Your task to perform on an android device: Open privacy settings Image 0: 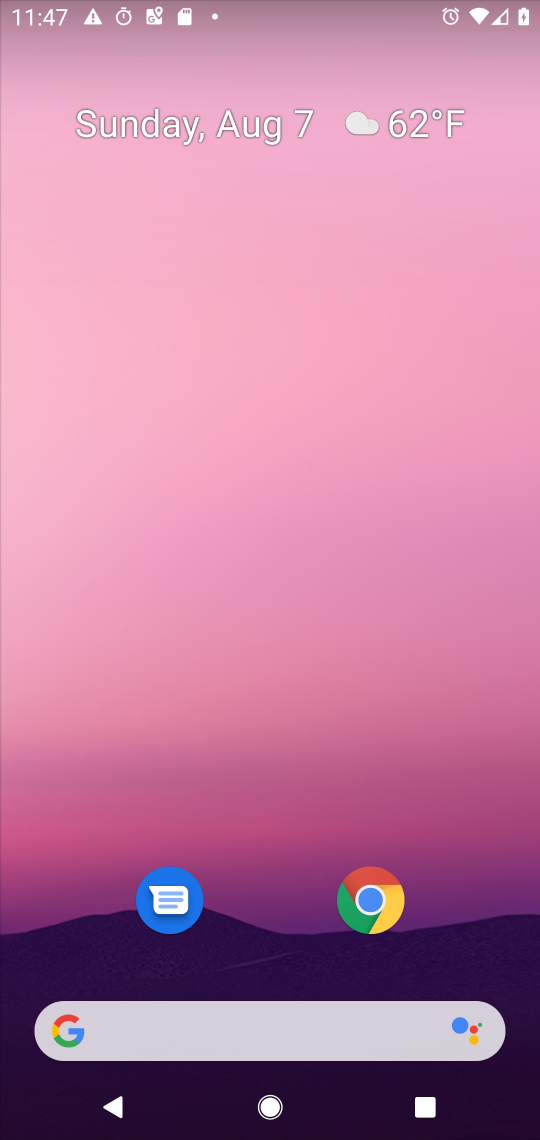
Step 0: drag from (281, 960) to (272, 138)
Your task to perform on an android device: Open privacy settings Image 1: 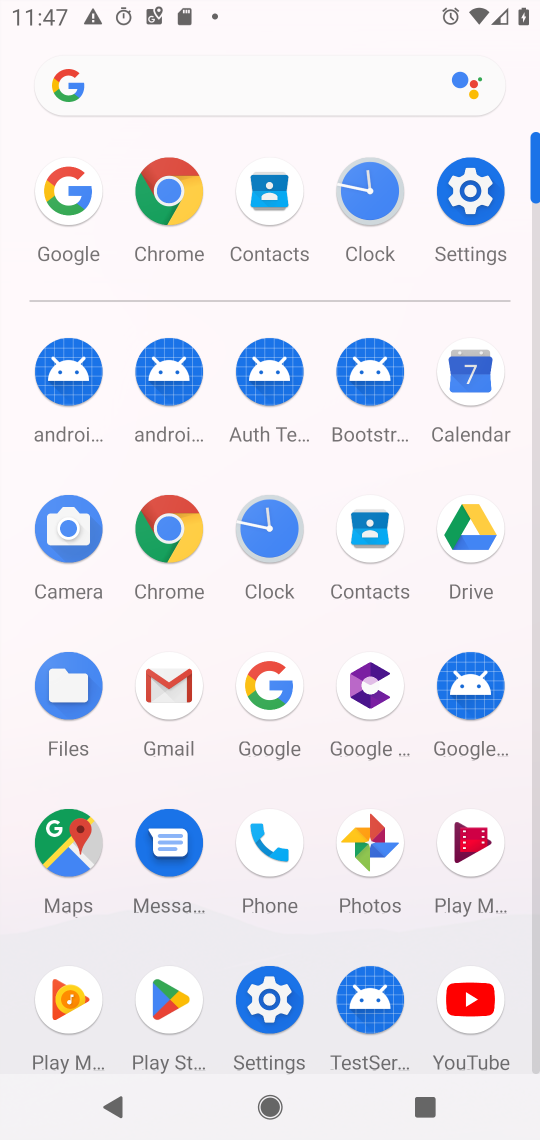
Step 1: click (465, 227)
Your task to perform on an android device: Open privacy settings Image 2: 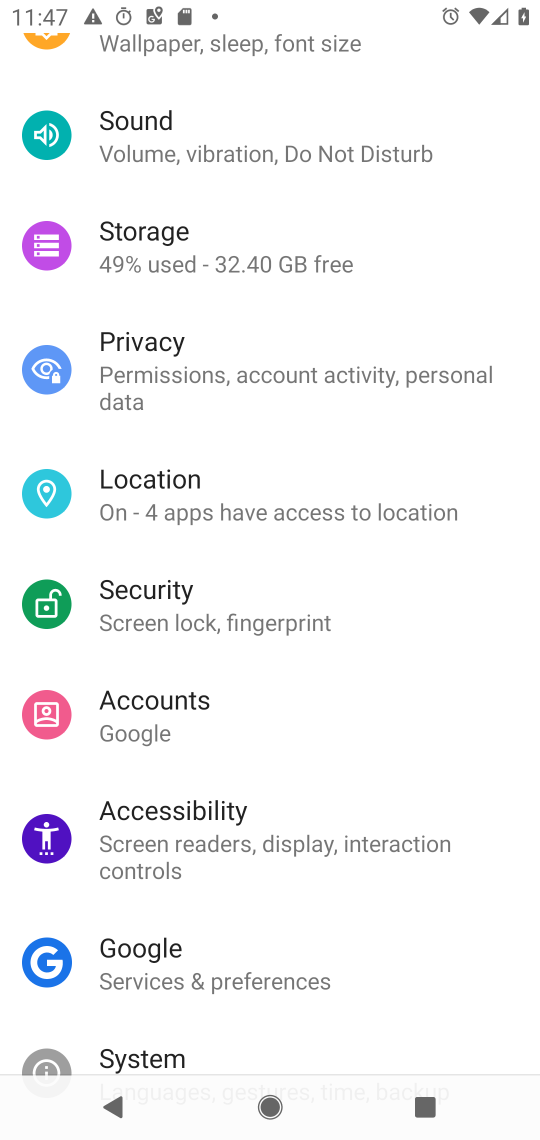
Step 2: click (203, 345)
Your task to perform on an android device: Open privacy settings Image 3: 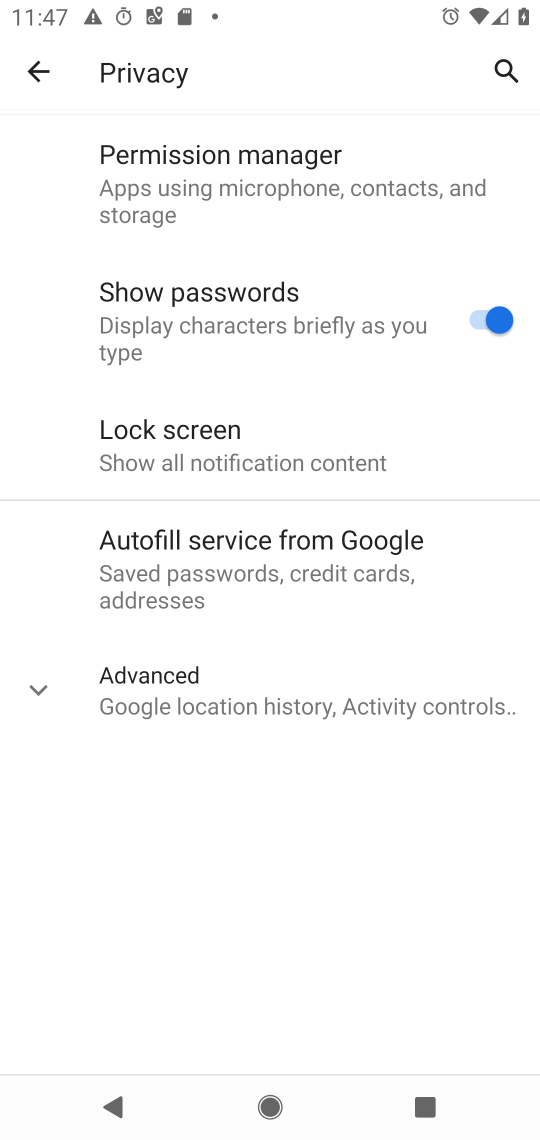
Step 3: click (41, 687)
Your task to perform on an android device: Open privacy settings Image 4: 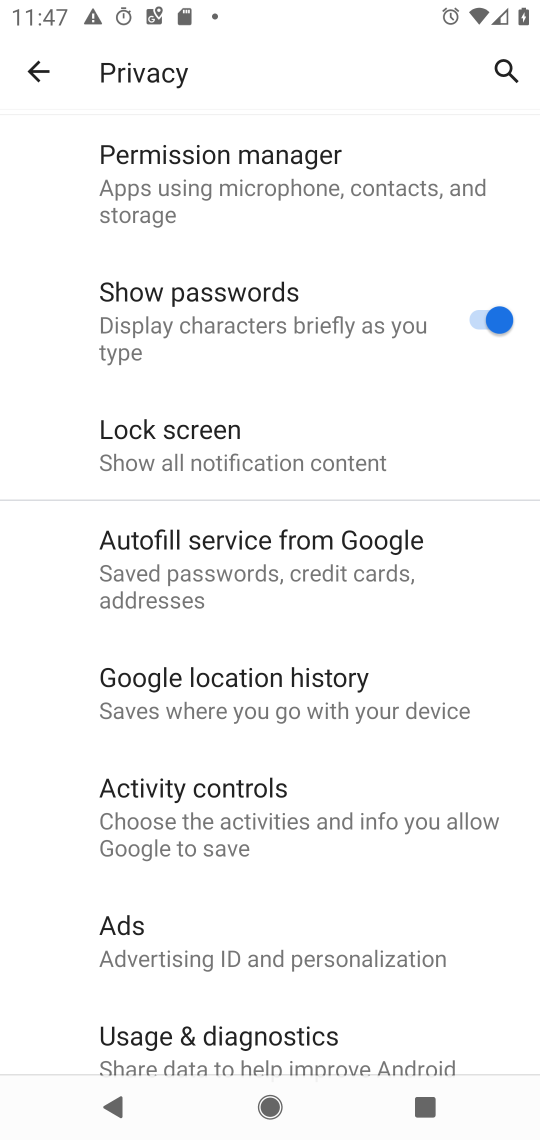
Step 4: task complete